Your task to perform on an android device: create a new album in the google photos Image 0: 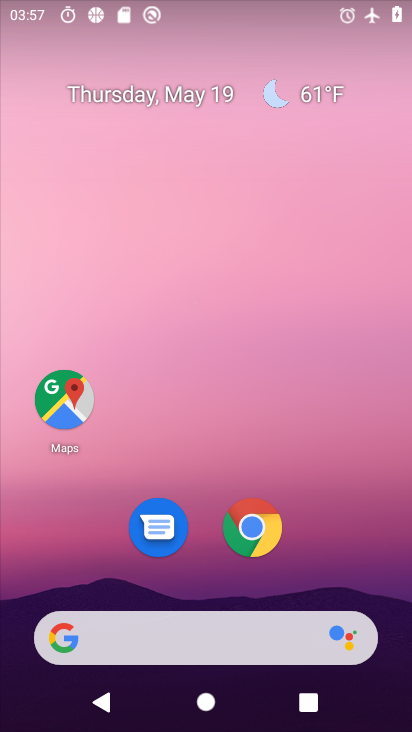
Step 0: drag from (214, 551) to (274, 101)
Your task to perform on an android device: create a new album in the google photos Image 1: 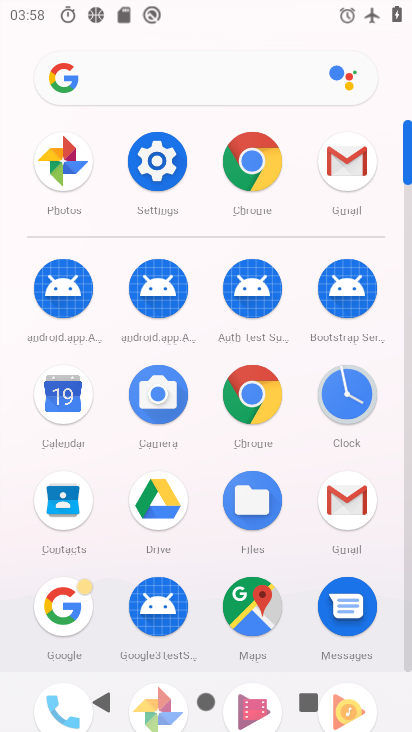
Step 1: drag from (204, 617) to (293, 164)
Your task to perform on an android device: create a new album in the google photos Image 2: 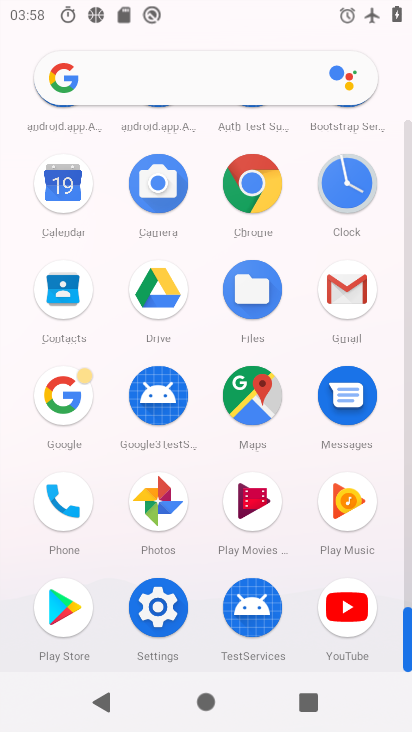
Step 2: click (158, 490)
Your task to perform on an android device: create a new album in the google photos Image 3: 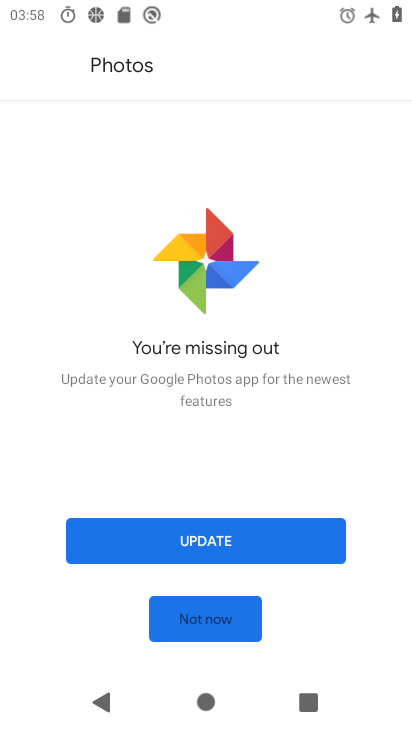
Step 3: drag from (204, 626) to (159, 626)
Your task to perform on an android device: create a new album in the google photos Image 4: 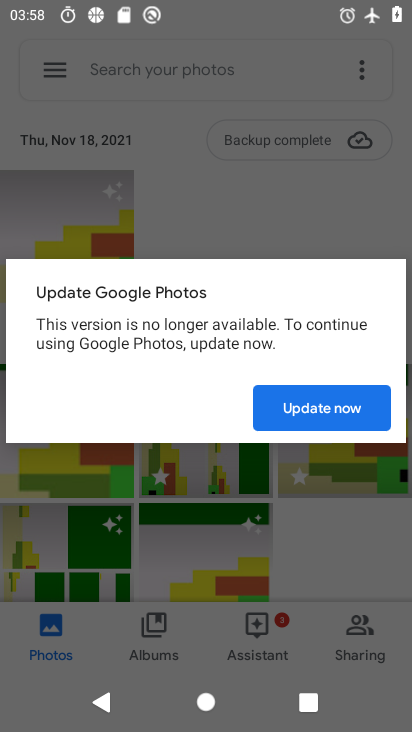
Step 4: click (293, 408)
Your task to perform on an android device: create a new album in the google photos Image 5: 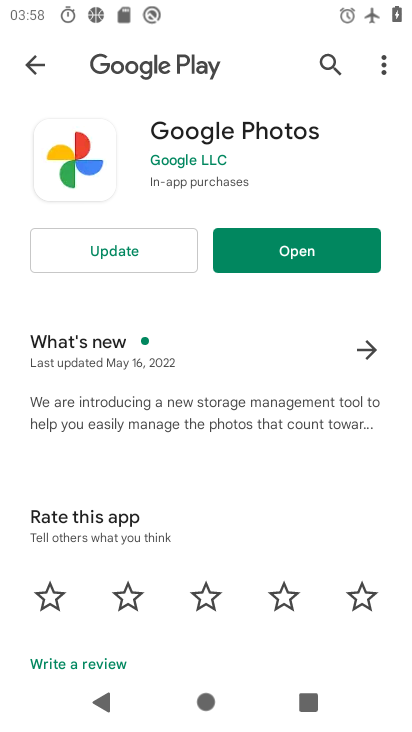
Step 5: click (266, 252)
Your task to perform on an android device: create a new album in the google photos Image 6: 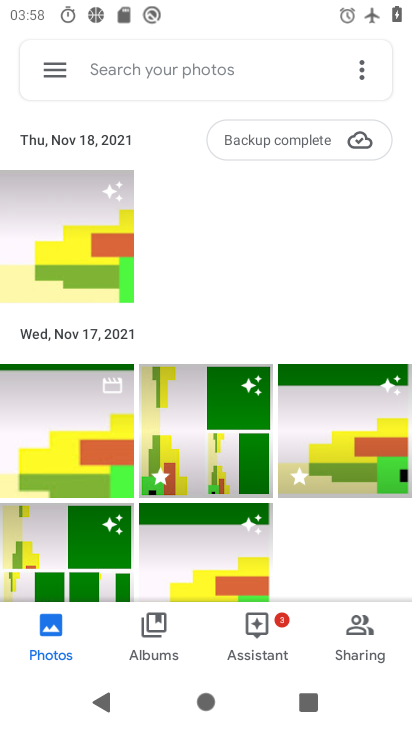
Step 6: click (368, 66)
Your task to perform on an android device: create a new album in the google photos Image 7: 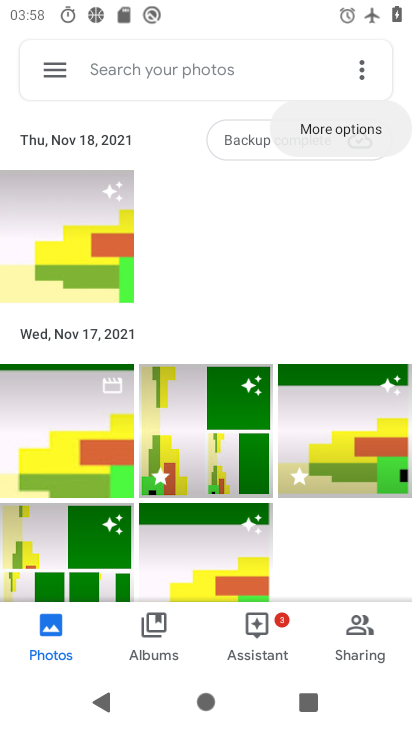
Step 7: click (363, 71)
Your task to perform on an android device: create a new album in the google photos Image 8: 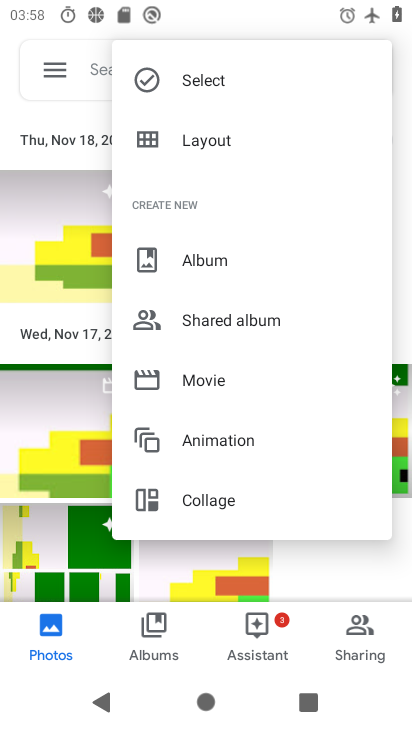
Step 8: click (188, 264)
Your task to perform on an android device: create a new album in the google photos Image 9: 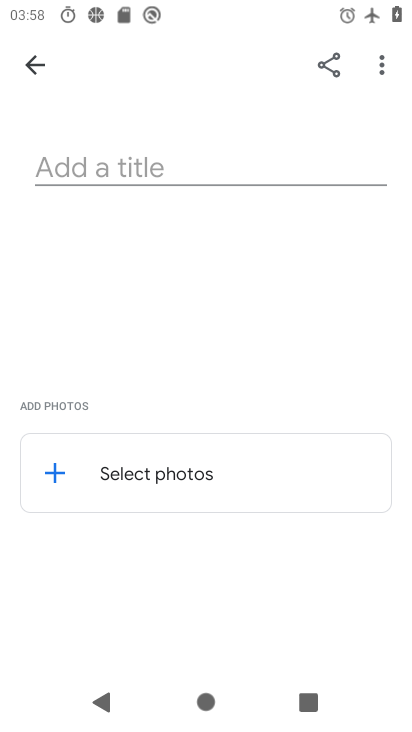
Step 9: click (66, 148)
Your task to perform on an android device: create a new album in the google photos Image 10: 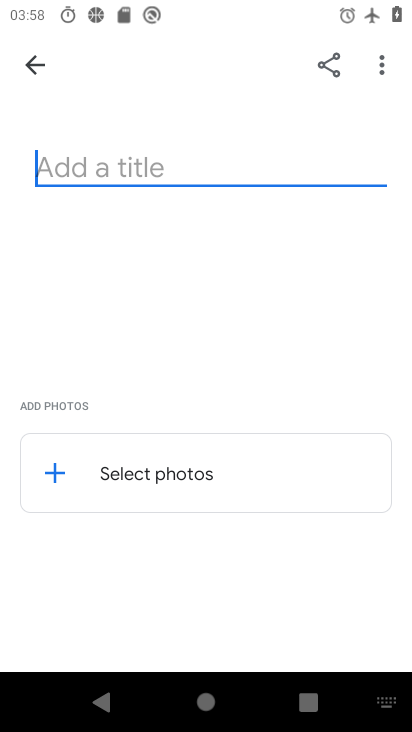
Step 10: type "hvhv"
Your task to perform on an android device: create a new album in the google photos Image 11: 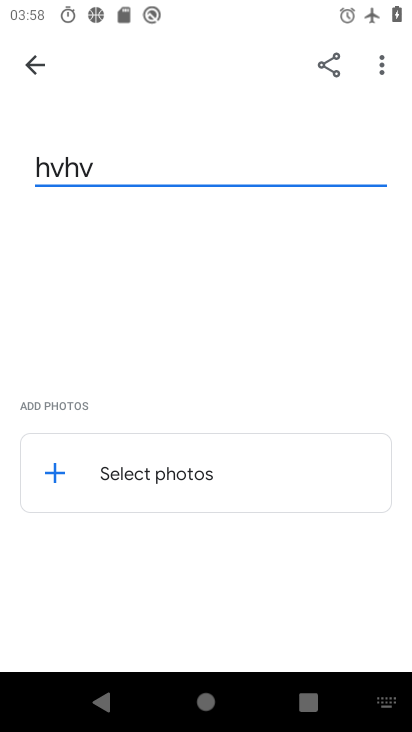
Step 11: click (135, 482)
Your task to perform on an android device: create a new album in the google photos Image 12: 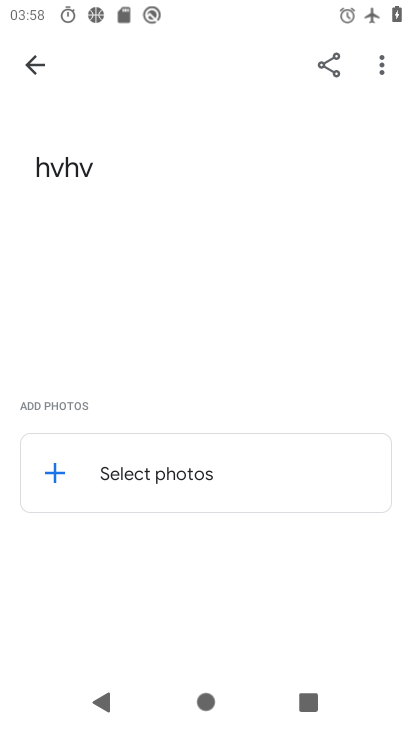
Step 12: click (122, 475)
Your task to perform on an android device: create a new album in the google photos Image 13: 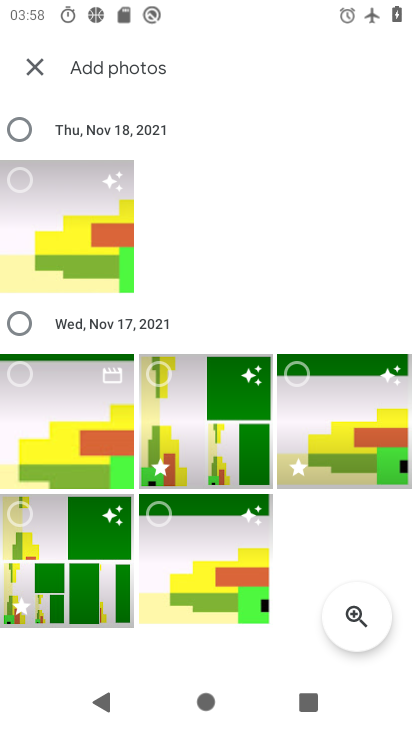
Step 13: click (20, 138)
Your task to perform on an android device: create a new album in the google photos Image 14: 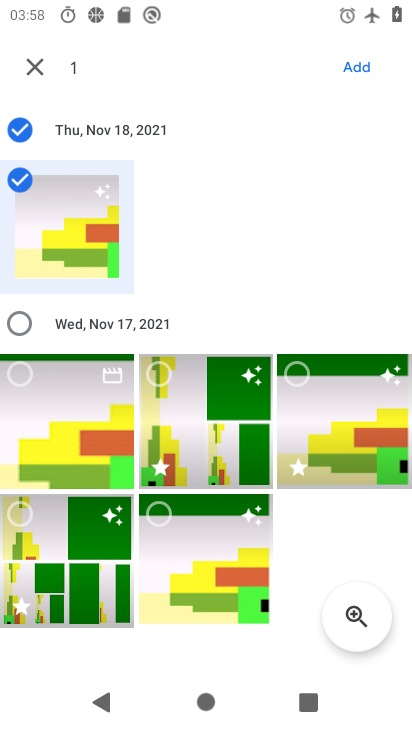
Step 14: click (28, 323)
Your task to perform on an android device: create a new album in the google photos Image 15: 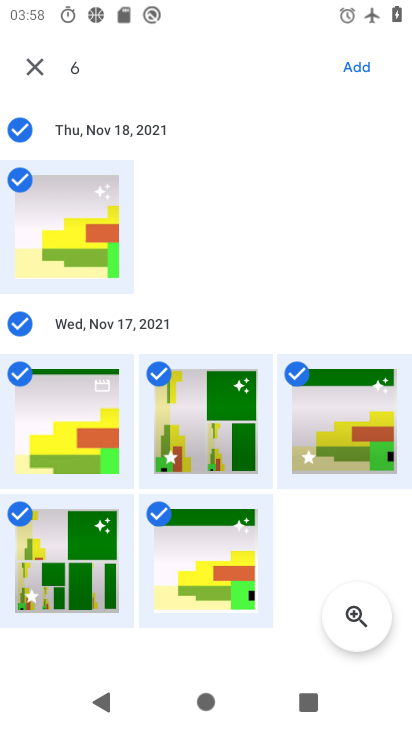
Step 15: click (354, 63)
Your task to perform on an android device: create a new album in the google photos Image 16: 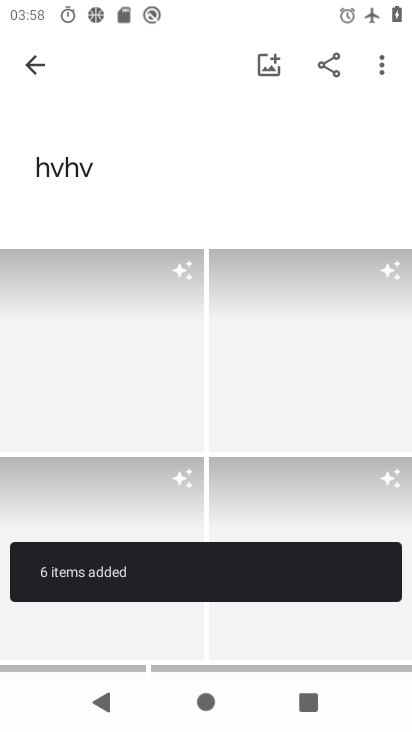
Step 16: task complete